Your task to perform on an android device: open a new tab in the chrome app Image 0: 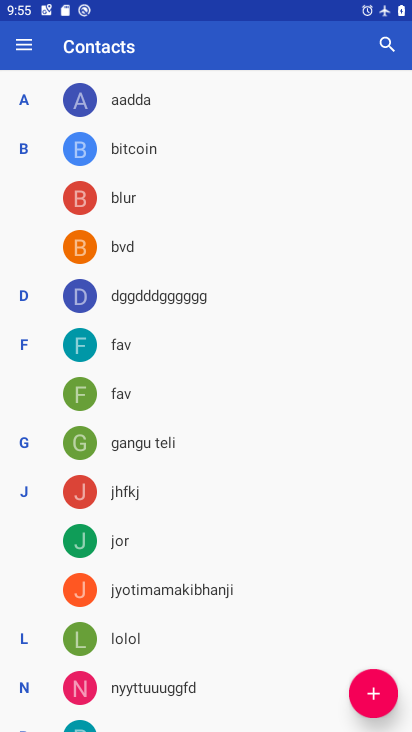
Step 0: press home button
Your task to perform on an android device: open a new tab in the chrome app Image 1: 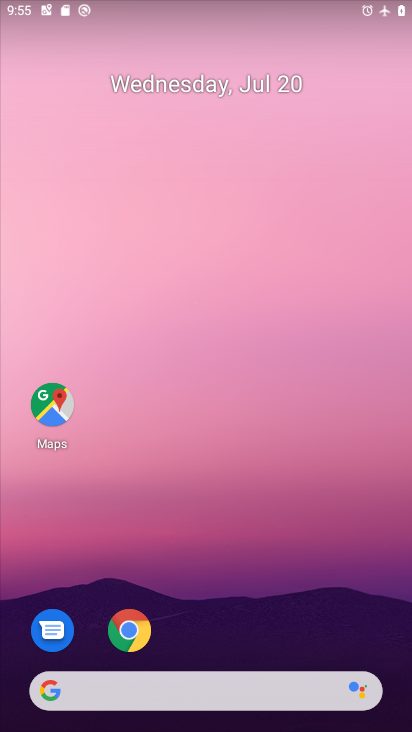
Step 1: click (124, 643)
Your task to perform on an android device: open a new tab in the chrome app Image 2: 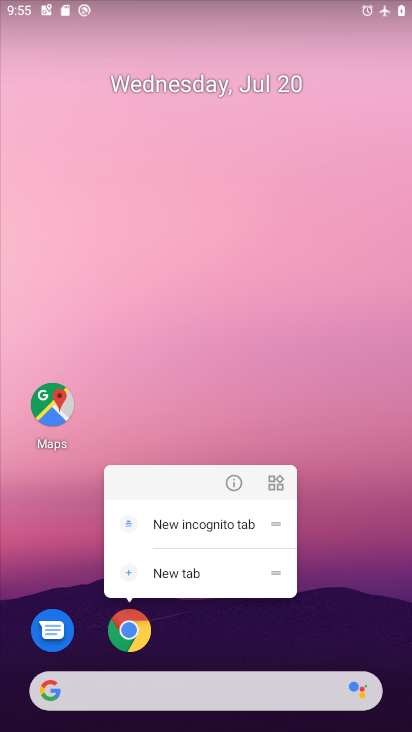
Step 2: click (112, 629)
Your task to perform on an android device: open a new tab in the chrome app Image 3: 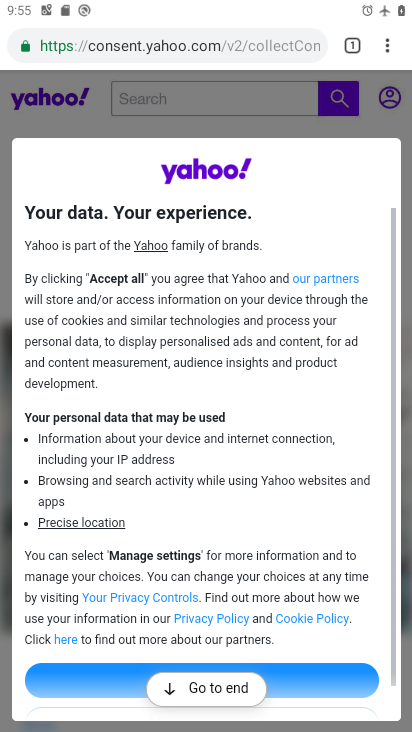
Step 3: task complete